Your task to perform on an android device: turn notification dots on Image 0: 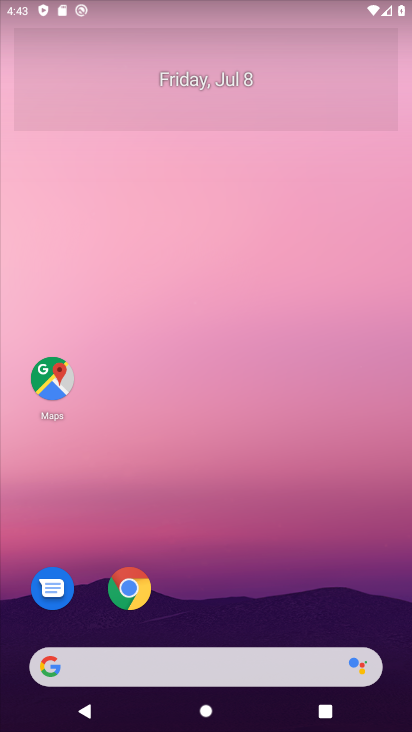
Step 0: drag from (376, 45) to (366, 12)
Your task to perform on an android device: turn notification dots on Image 1: 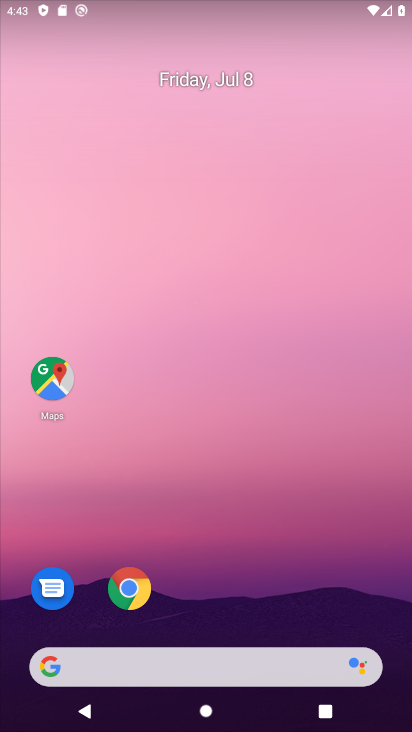
Step 1: drag from (224, 466) to (332, 14)
Your task to perform on an android device: turn notification dots on Image 2: 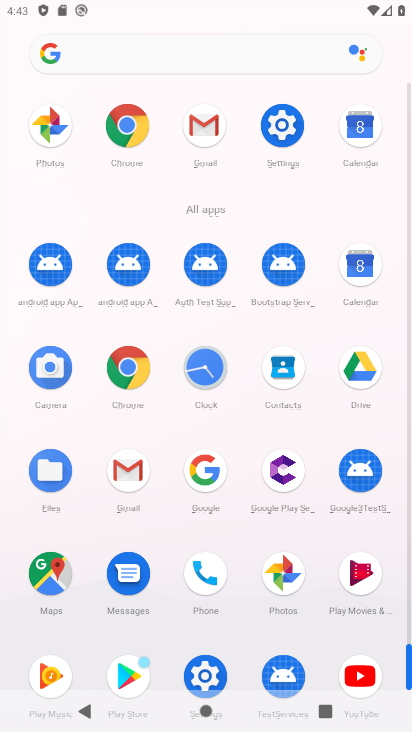
Step 2: click (214, 674)
Your task to perform on an android device: turn notification dots on Image 3: 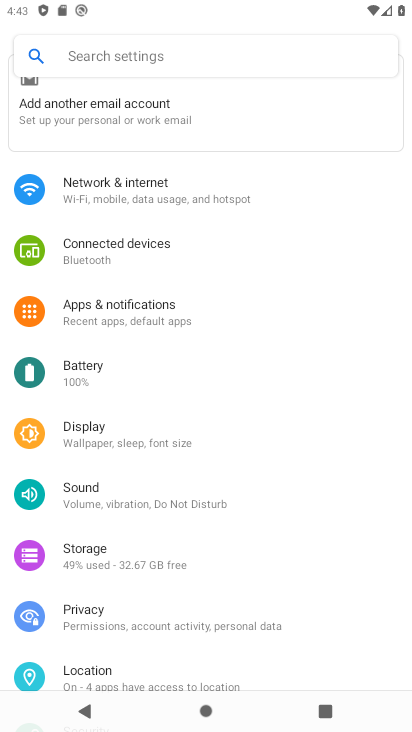
Step 3: drag from (232, 633) to (279, 163)
Your task to perform on an android device: turn notification dots on Image 4: 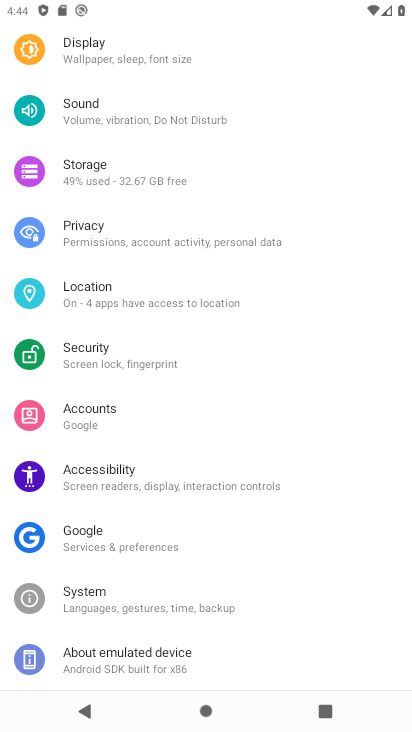
Step 4: drag from (264, 128) to (249, 625)
Your task to perform on an android device: turn notification dots on Image 5: 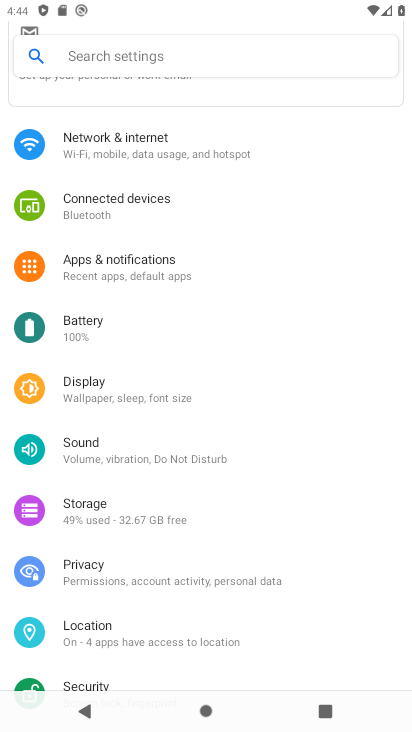
Step 5: click (152, 57)
Your task to perform on an android device: turn notification dots on Image 6: 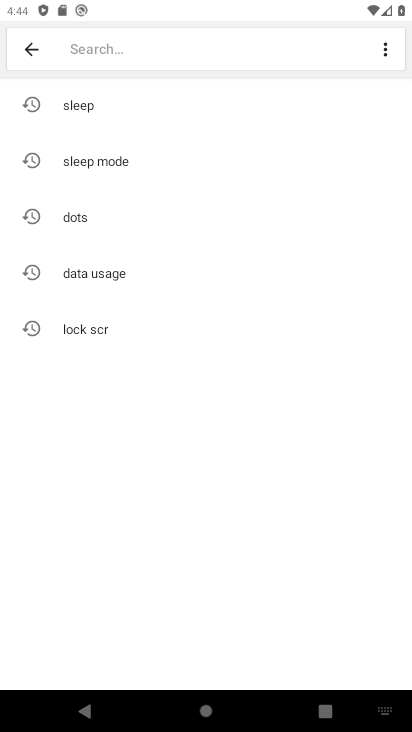
Step 6: click (53, 225)
Your task to perform on an android device: turn notification dots on Image 7: 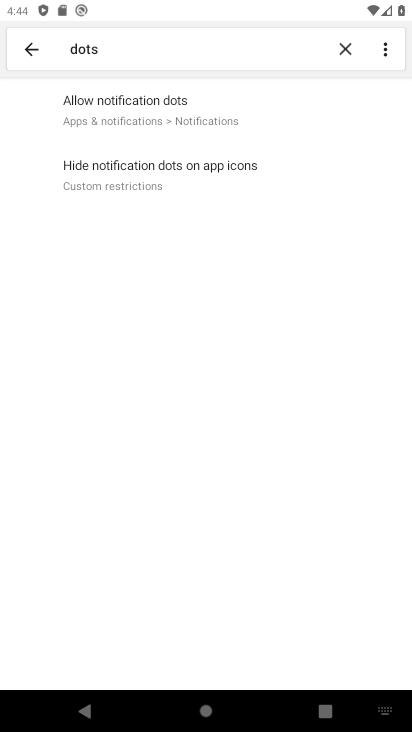
Step 7: click (92, 115)
Your task to perform on an android device: turn notification dots on Image 8: 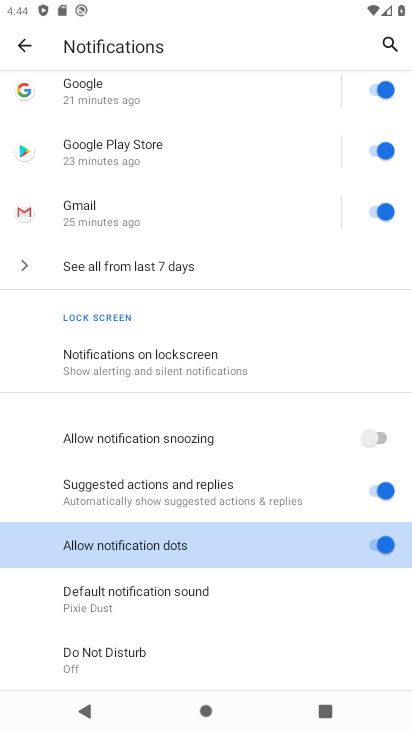
Step 8: click (393, 551)
Your task to perform on an android device: turn notification dots on Image 9: 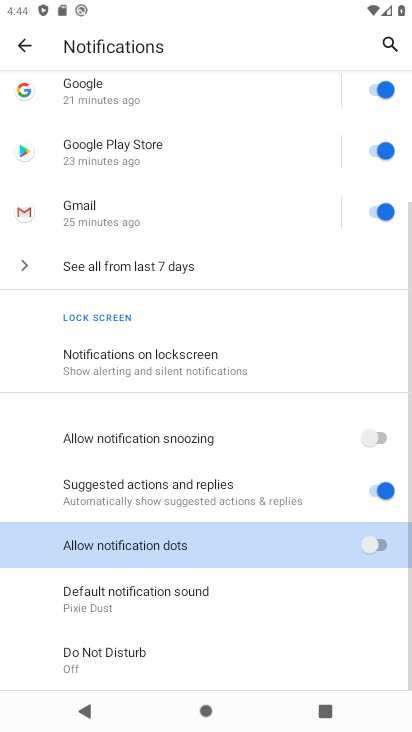
Step 9: click (388, 545)
Your task to perform on an android device: turn notification dots on Image 10: 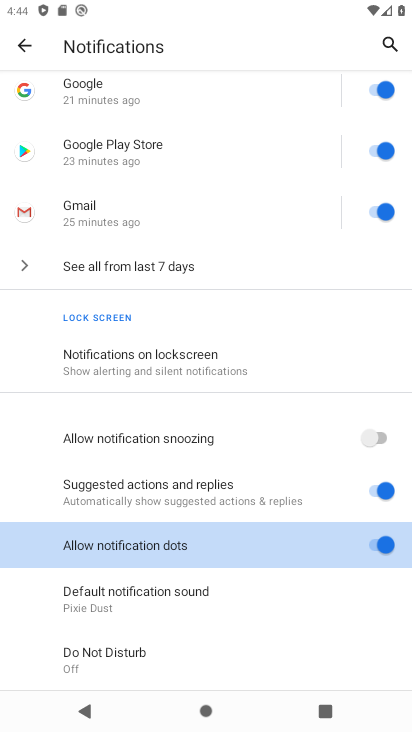
Step 10: task complete